Your task to perform on an android device: turn pop-ups on in chrome Image 0: 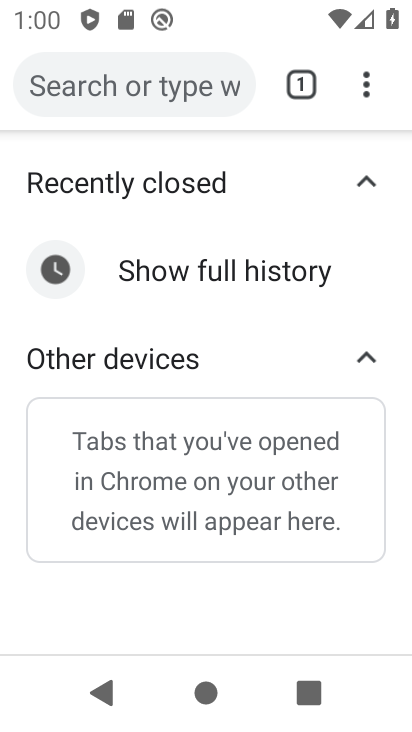
Step 0: click (378, 90)
Your task to perform on an android device: turn pop-ups on in chrome Image 1: 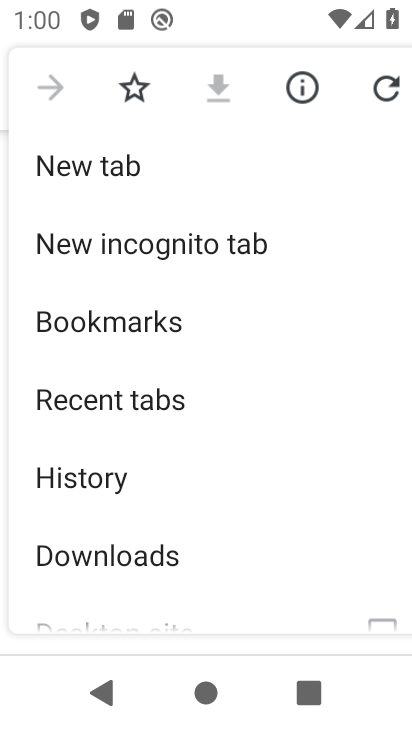
Step 1: drag from (124, 583) to (126, 178)
Your task to perform on an android device: turn pop-ups on in chrome Image 2: 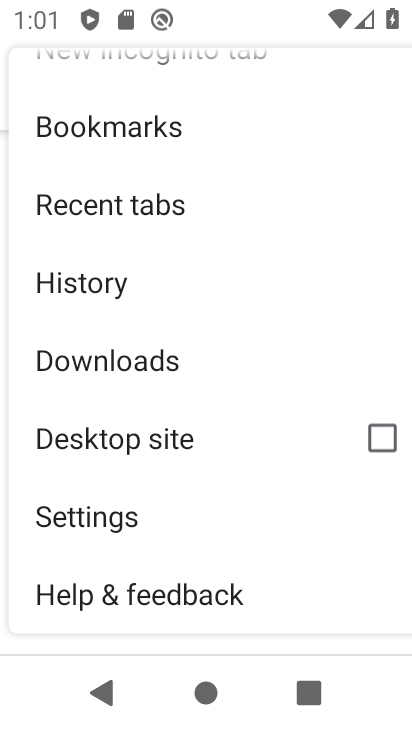
Step 2: click (125, 532)
Your task to perform on an android device: turn pop-ups on in chrome Image 3: 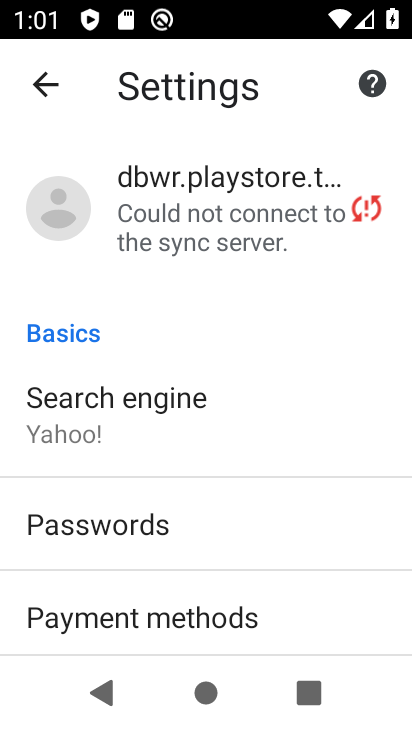
Step 3: task complete